Your task to perform on an android device: turn off notifications in google photos Image 0: 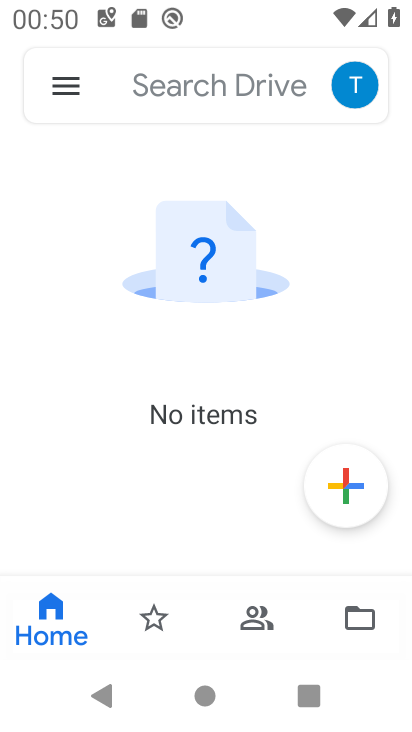
Step 0: press home button
Your task to perform on an android device: turn off notifications in google photos Image 1: 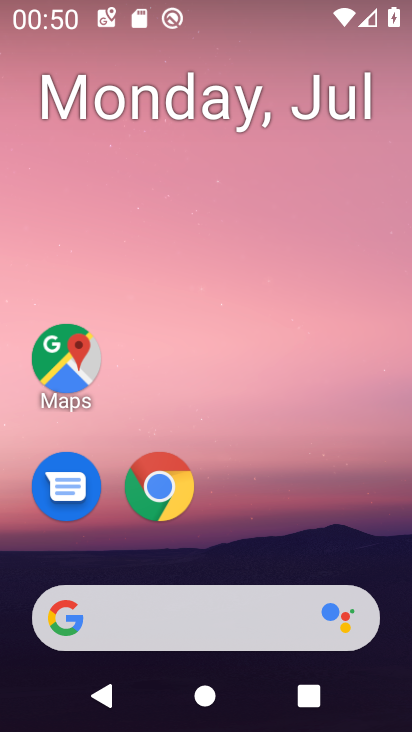
Step 1: drag from (354, 562) to (362, 113)
Your task to perform on an android device: turn off notifications in google photos Image 2: 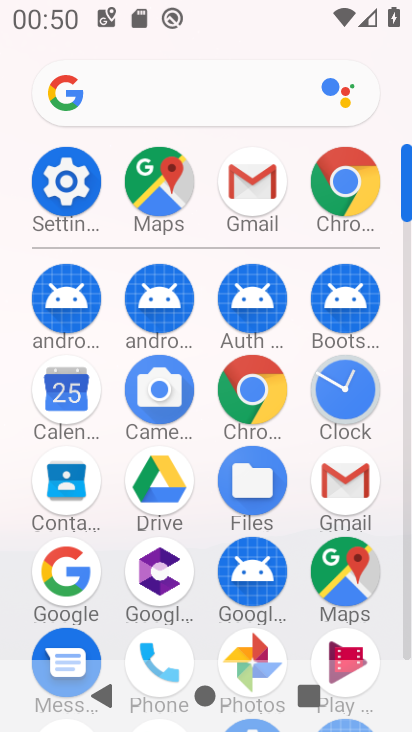
Step 2: drag from (394, 540) to (392, 336)
Your task to perform on an android device: turn off notifications in google photos Image 3: 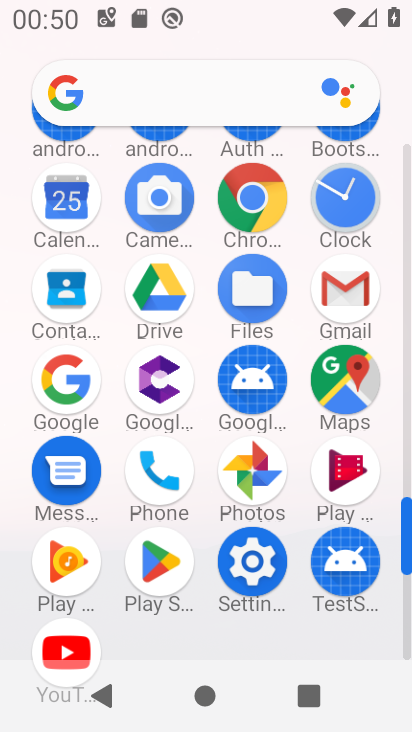
Step 3: click (253, 471)
Your task to perform on an android device: turn off notifications in google photos Image 4: 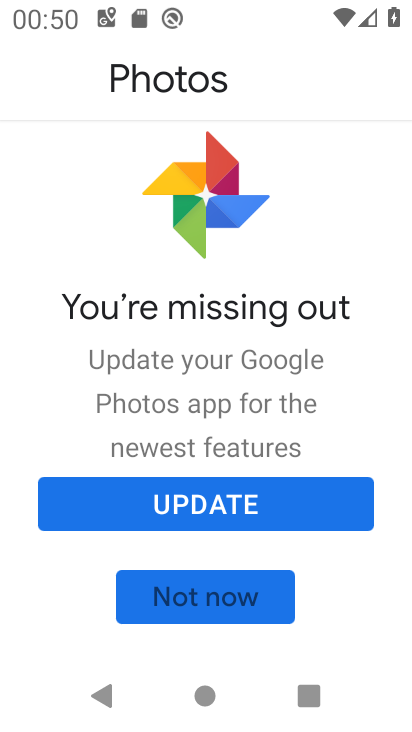
Step 4: click (232, 500)
Your task to perform on an android device: turn off notifications in google photos Image 5: 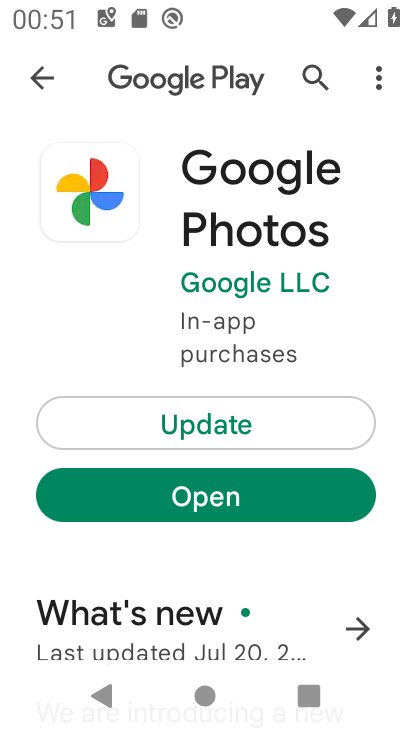
Step 5: click (255, 409)
Your task to perform on an android device: turn off notifications in google photos Image 6: 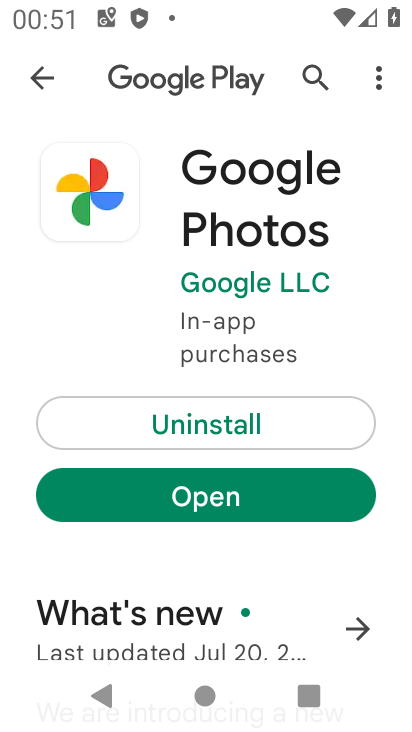
Step 6: click (236, 500)
Your task to perform on an android device: turn off notifications in google photos Image 7: 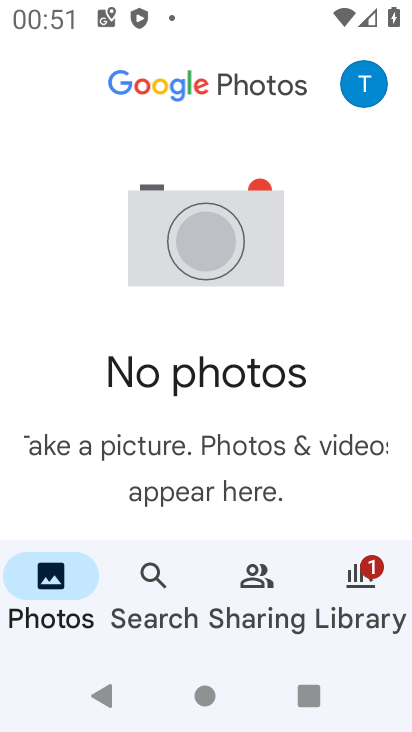
Step 7: click (361, 88)
Your task to perform on an android device: turn off notifications in google photos Image 8: 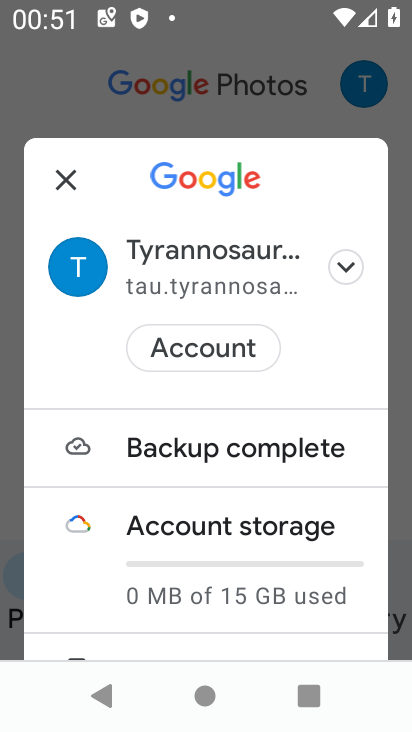
Step 8: drag from (319, 506) to (314, 228)
Your task to perform on an android device: turn off notifications in google photos Image 9: 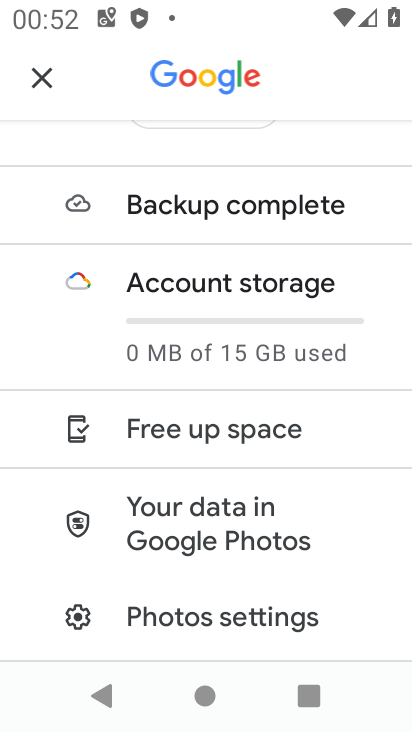
Step 9: drag from (310, 547) to (328, 304)
Your task to perform on an android device: turn off notifications in google photos Image 10: 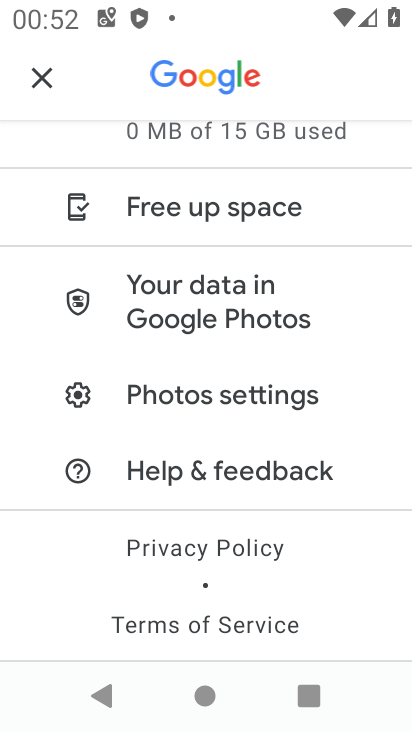
Step 10: click (299, 414)
Your task to perform on an android device: turn off notifications in google photos Image 11: 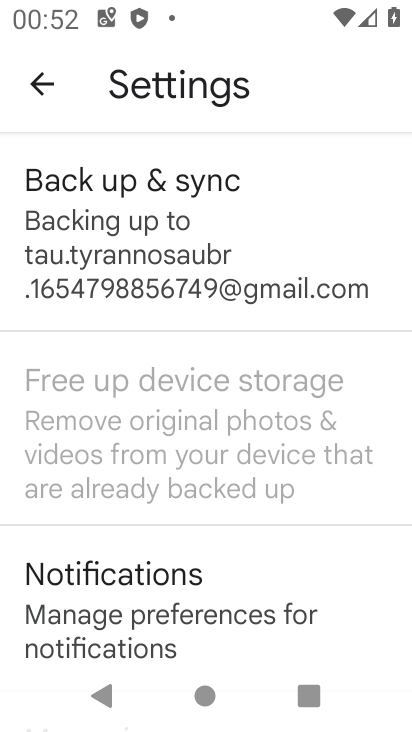
Step 11: drag from (300, 549) to (314, 414)
Your task to perform on an android device: turn off notifications in google photos Image 12: 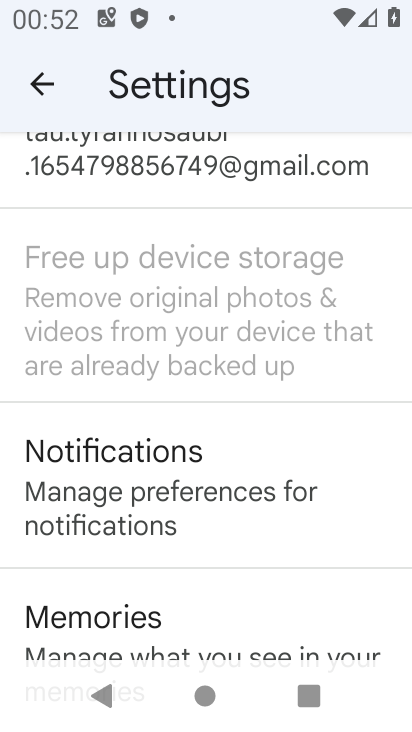
Step 12: drag from (321, 582) to (334, 444)
Your task to perform on an android device: turn off notifications in google photos Image 13: 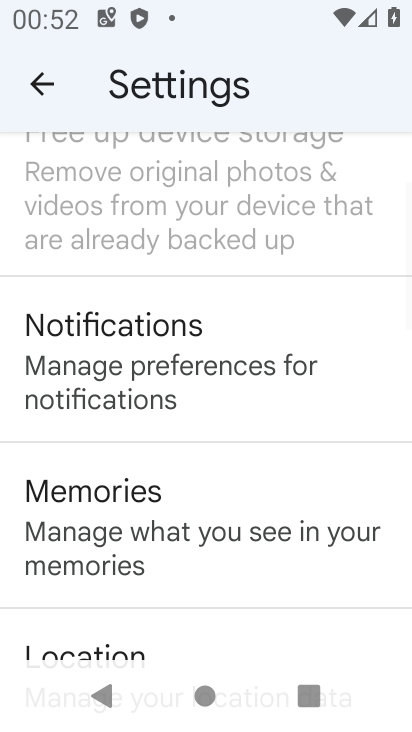
Step 13: drag from (338, 597) to (351, 458)
Your task to perform on an android device: turn off notifications in google photos Image 14: 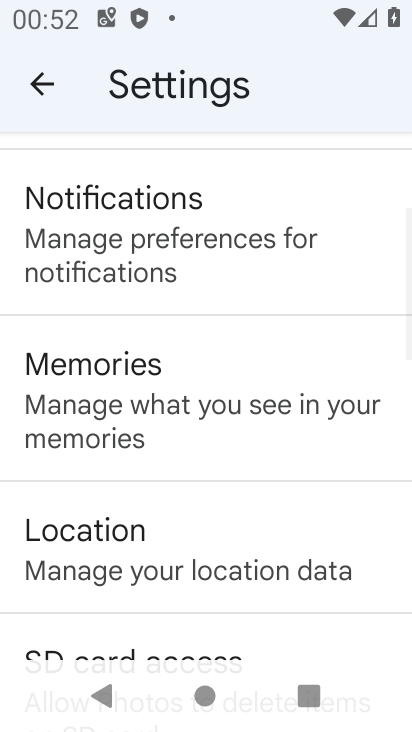
Step 14: drag from (369, 261) to (370, 409)
Your task to perform on an android device: turn off notifications in google photos Image 15: 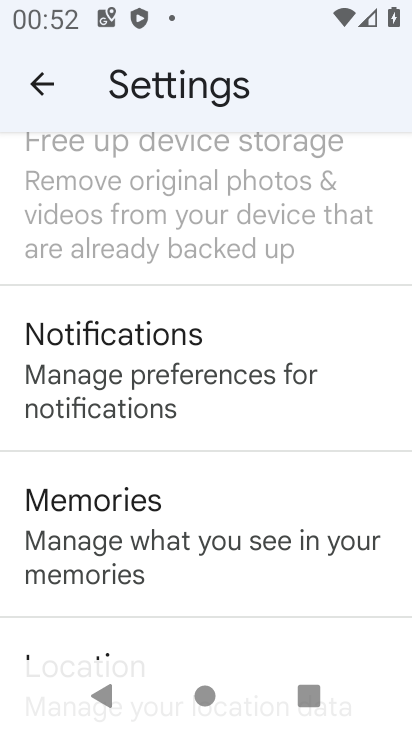
Step 15: drag from (353, 296) to (358, 430)
Your task to perform on an android device: turn off notifications in google photos Image 16: 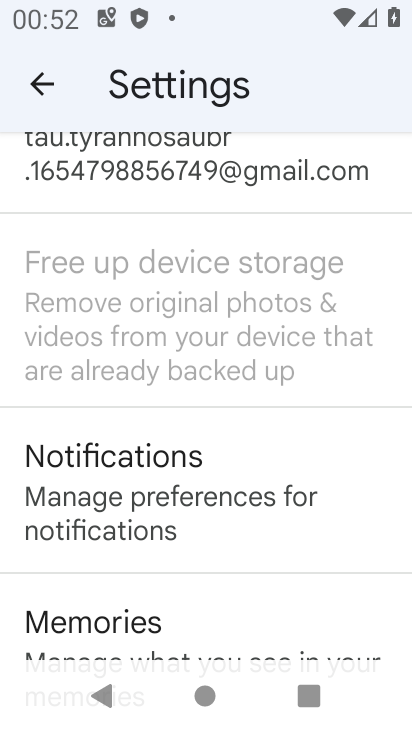
Step 16: click (338, 506)
Your task to perform on an android device: turn off notifications in google photos Image 17: 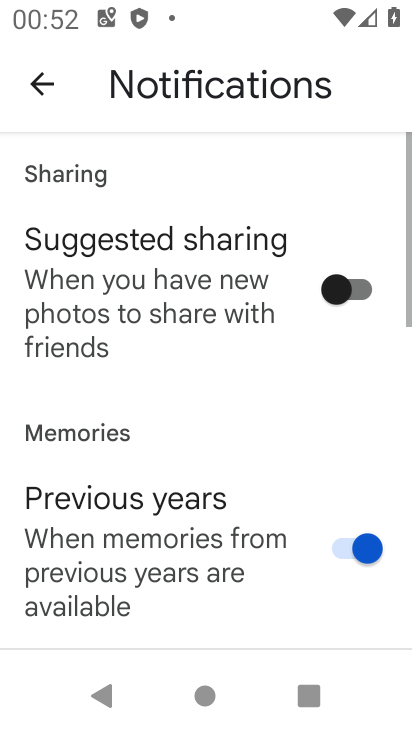
Step 17: drag from (283, 594) to (292, 480)
Your task to perform on an android device: turn off notifications in google photos Image 18: 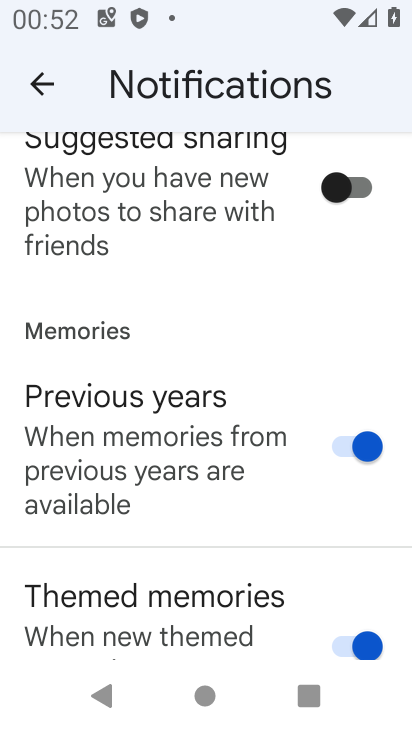
Step 18: drag from (292, 614) to (289, 453)
Your task to perform on an android device: turn off notifications in google photos Image 19: 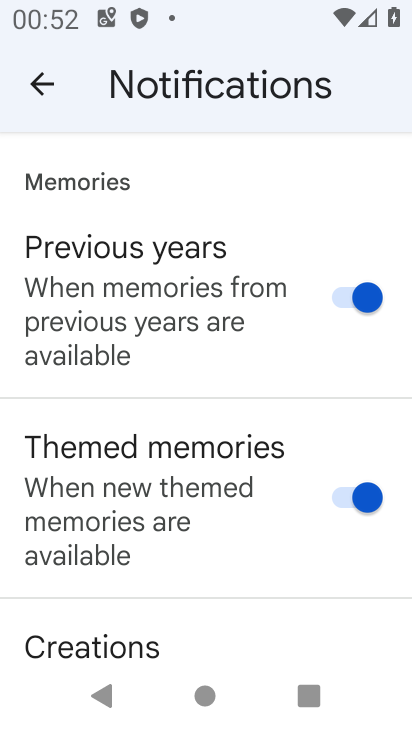
Step 19: drag from (268, 585) to (264, 468)
Your task to perform on an android device: turn off notifications in google photos Image 20: 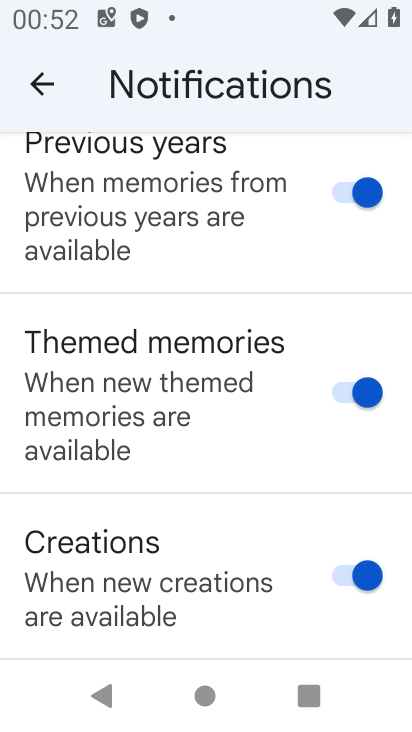
Step 20: drag from (257, 577) to (257, 492)
Your task to perform on an android device: turn off notifications in google photos Image 21: 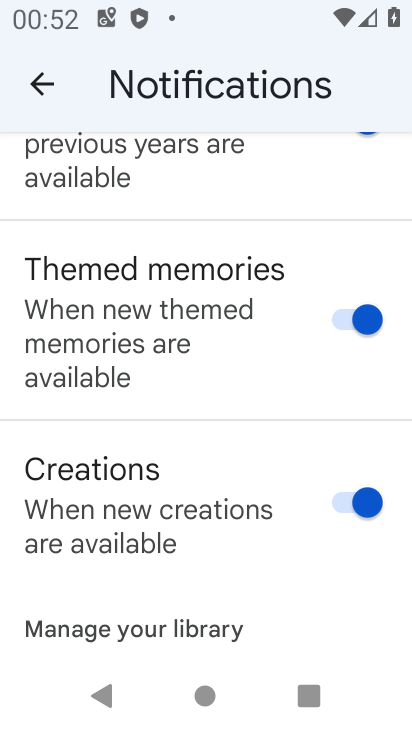
Step 21: drag from (259, 601) to (266, 499)
Your task to perform on an android device: turn off notifications in google photos Image 22: 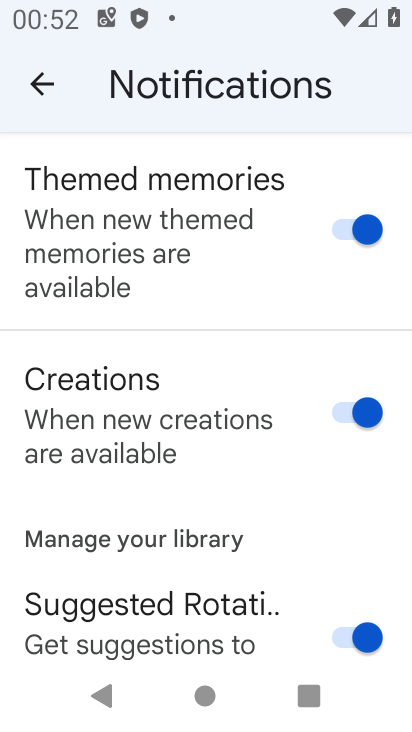
Step 22: drag from (286, 612) to (292, 490)
Your task to perform on an android device: turn off notifications in google photos Image 23: 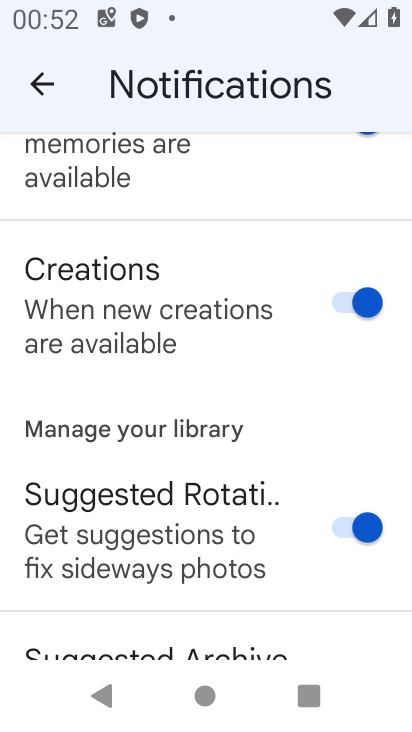
Step 23: drag from (282, 610) to (294, 456)
Your task to perform on an android device: turn off notifications in google photos Image 24: 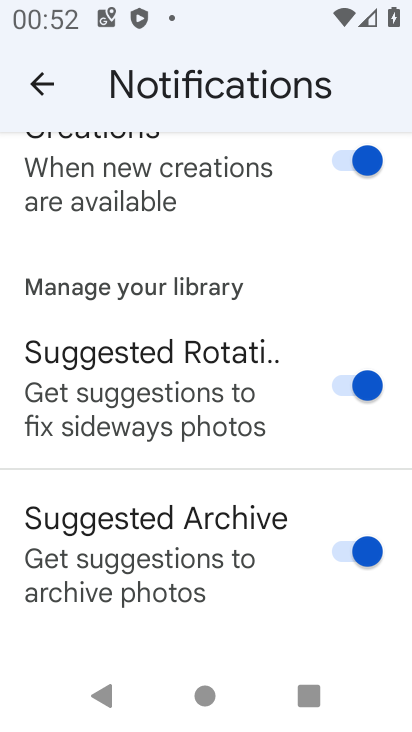
Step 24: drag from (280, 580) to (294, 305)
Your task to perform on an android device: turn off notifications in google photos Image 25: 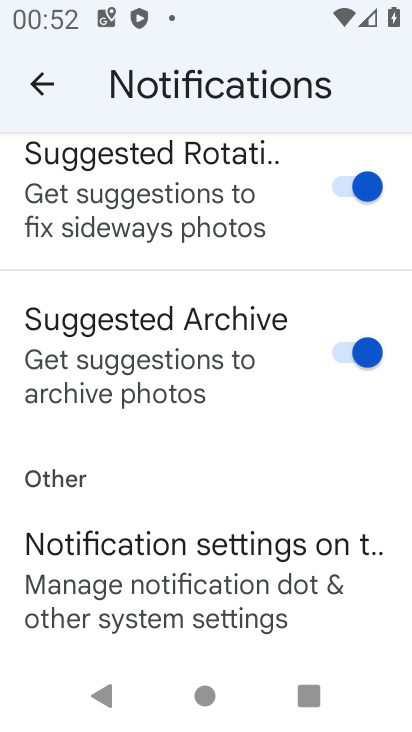
Step 25: drag from (296, 550) to (277, 316)
Your task to perform on an android device: turn off notifications in google photos Image 26: 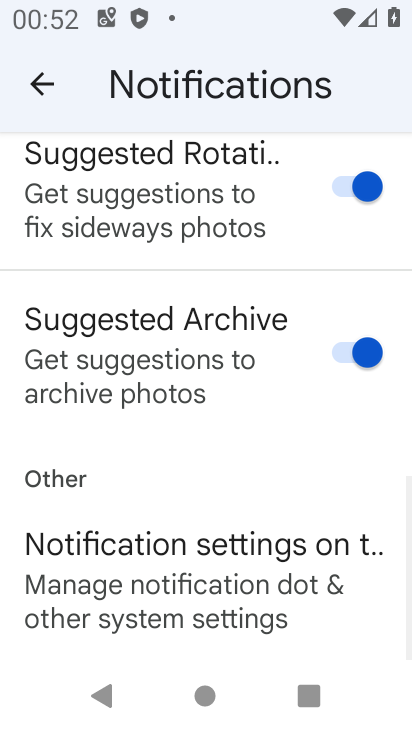
Step 26: click (270, 567)
Your task to perform on an android device: turn off notifications in google photos Image 27: 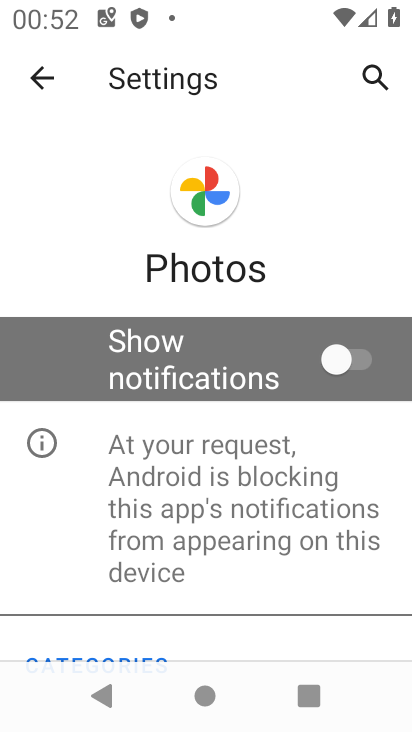
Step 27: task complete